Your task to perform on an android device: set the timer Image 0: 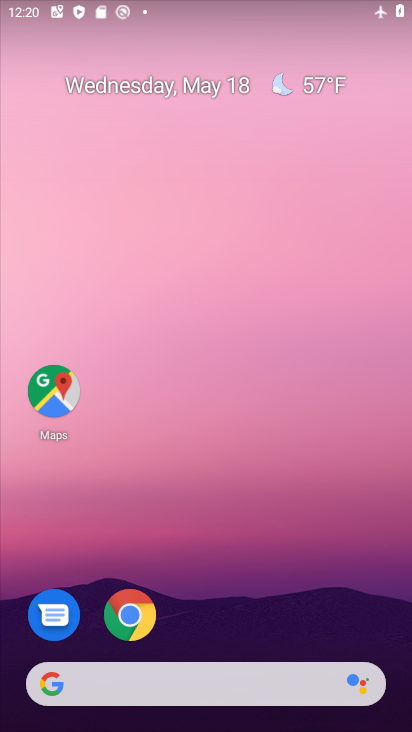
Step 0: drag from (317, 627) to (291, 103)
Your task to perform on an android device: set the timer Image 1: 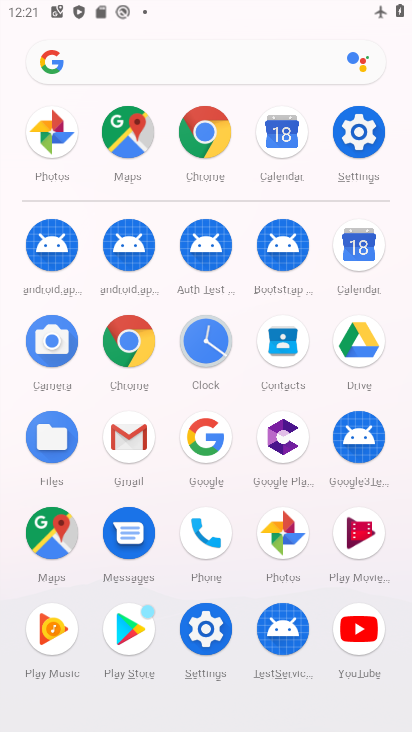
Step 1: click (218, 339)
Your task to perform on an android device: set the timer Image 2: 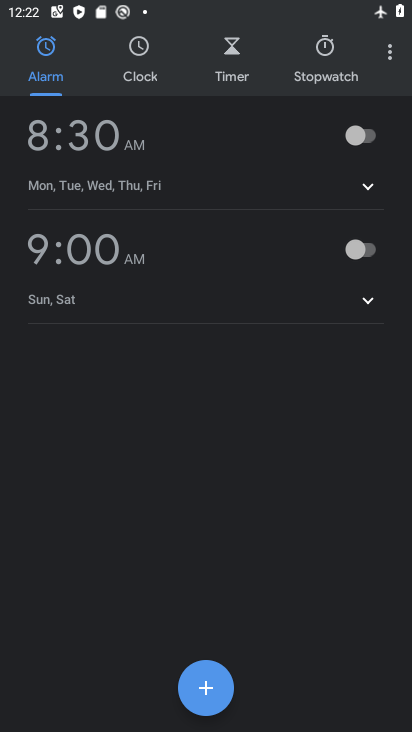
Step 2: click (393, 57)
Your task to perform on an android device: set the timer Image 3: 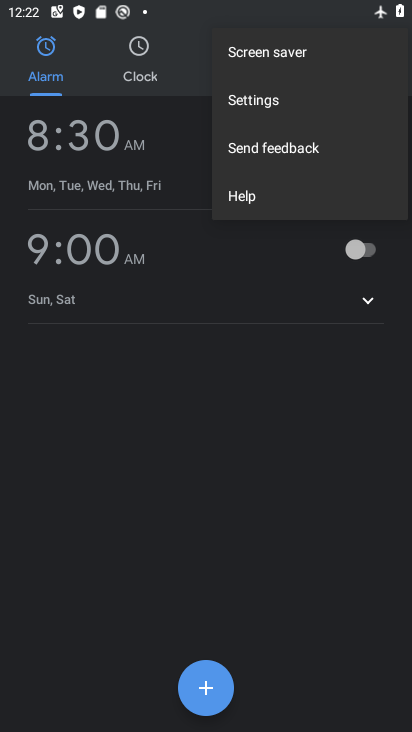
Step 3: click (258, 114)
Your task to perform on an android device: set the timer Image 4: 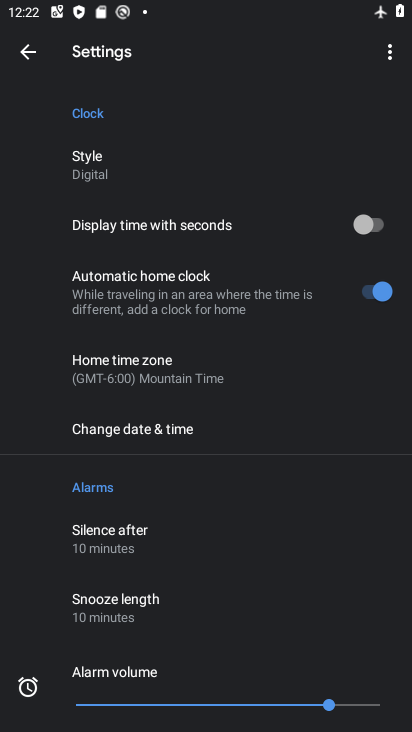
Step 4: click (171, 379)
Your task to perform on an android device: set the timer Image 5: 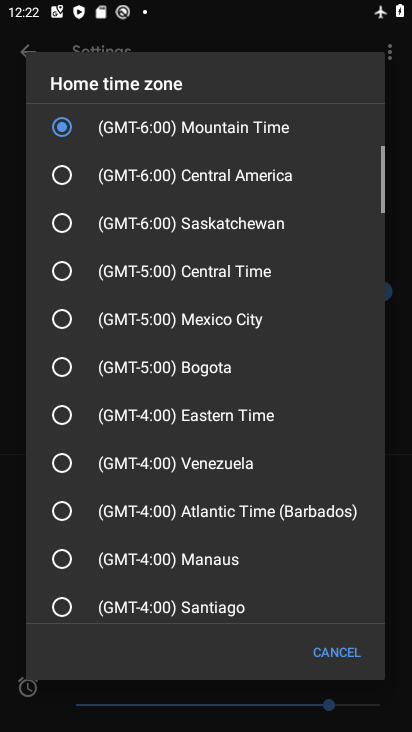
Step 5: click (176, 375)
Your task to perform on an android device: set the timer Image 6: 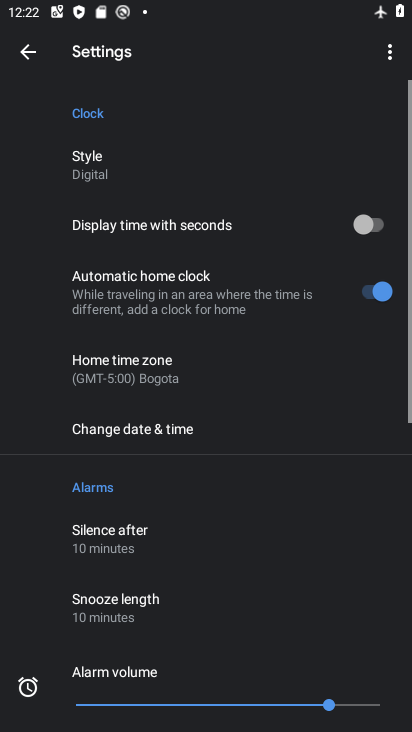
Step 6: task complete